Your task to perform on an android device: What's the weather? Image 0: 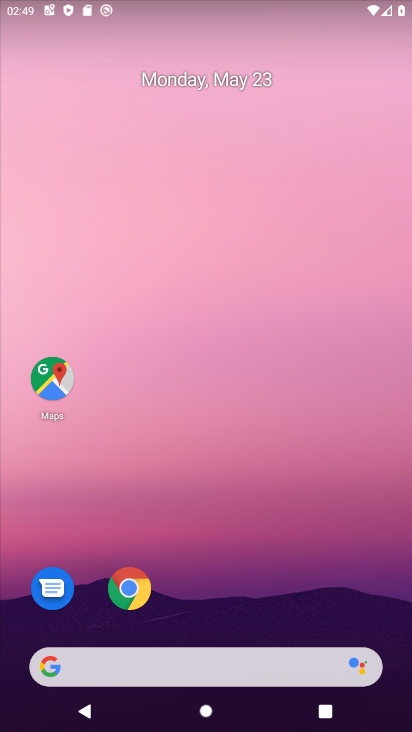
Step 0: drag from (230, 718) to (233, 17)
Your task to perform on an android device: What's the weather? Image 1: 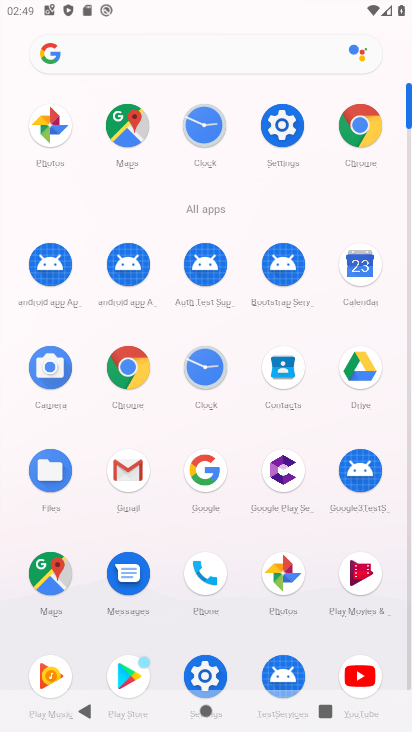
Step 1: click (199, 461)
Your task to perform on an android device: What's the weather? Image 2: 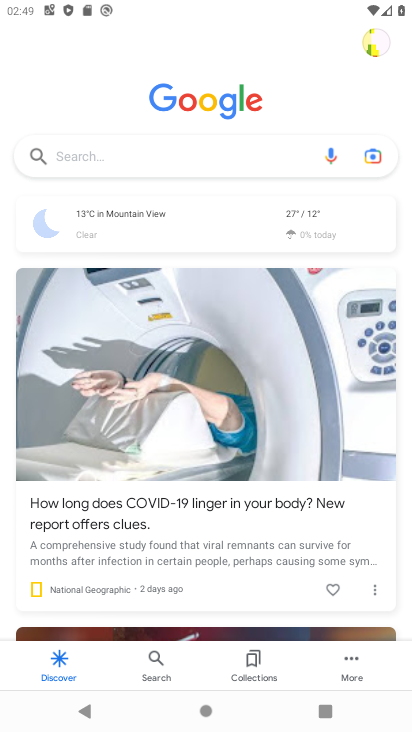
Step 2: click (92, 226)
Your task to perform on an android device: What's the weather? Image 3: 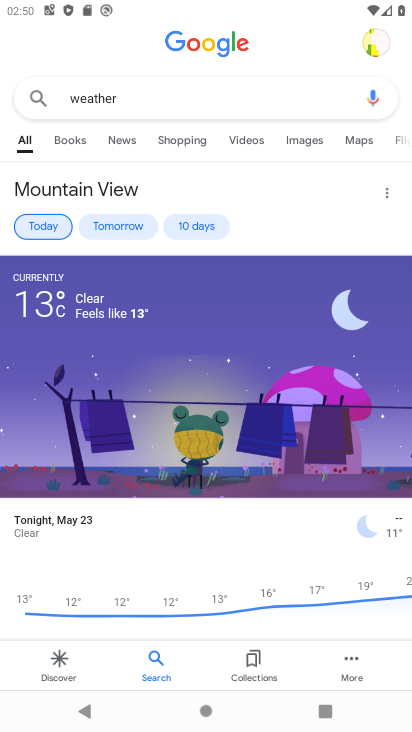
Step 3: task complete